Your task to perform on an android device: Go to accessibility settings Image 0: 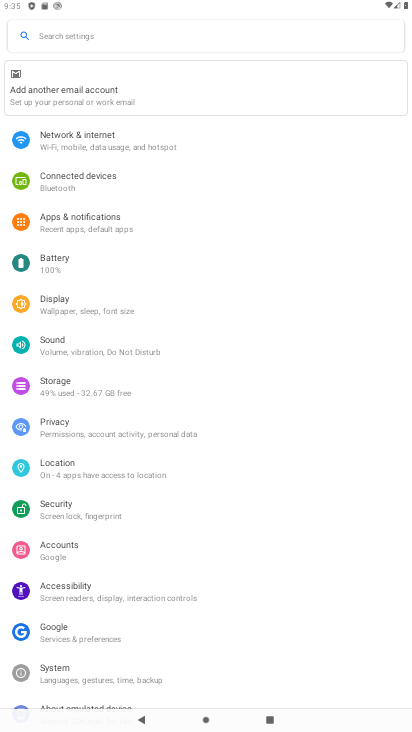
Step 0: press home button
Your task to perform on an android device: Go to accessibility settings Image 1: 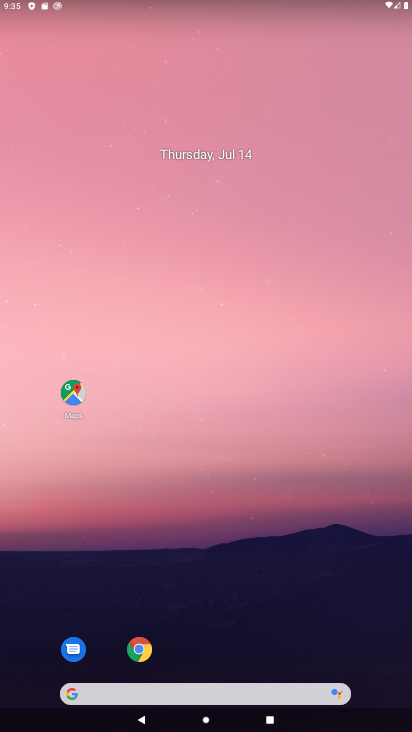
Step 1: drag from (177, 645) to (217, 5)
Your task to perform on an android device: Go to accessibility settings Image 2: 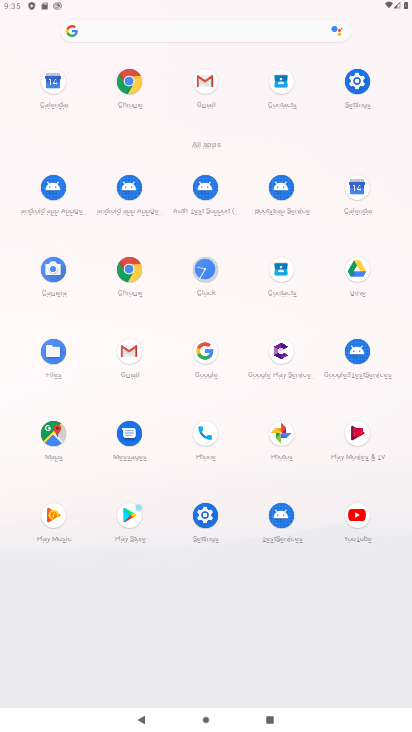
Step 2: click (355, 83)
Your task to perform on an android device: Go to accessibility settings Image 3: 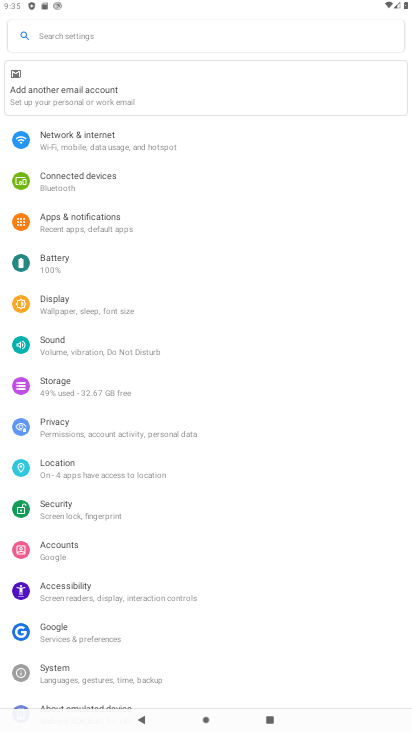
Step 3: click (68, 590)
Your task to perform on an android device: Go to accessibility settings Image 4: 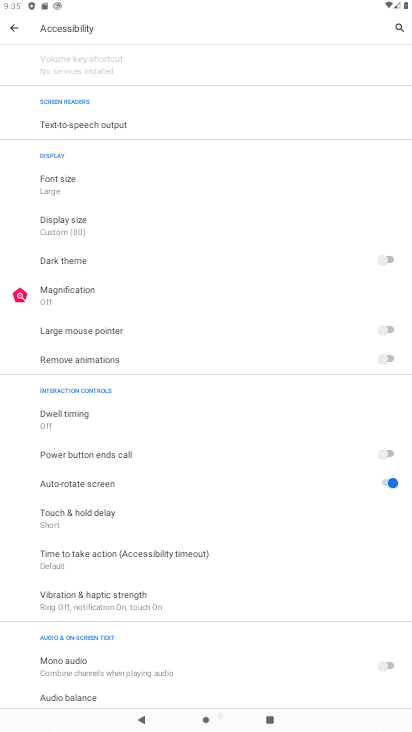
Step 4: task complete